Your task to perform on an android device: Turn off the flashlight Image 0: 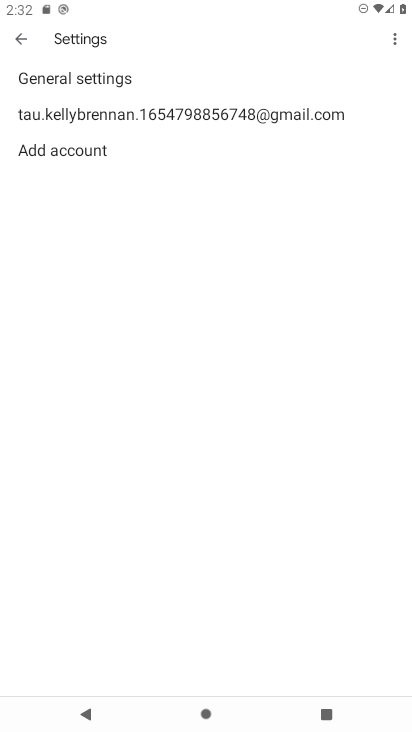
Step 0: press home button
Your task to perform on an android device: Turn off the flashlight Image 1: 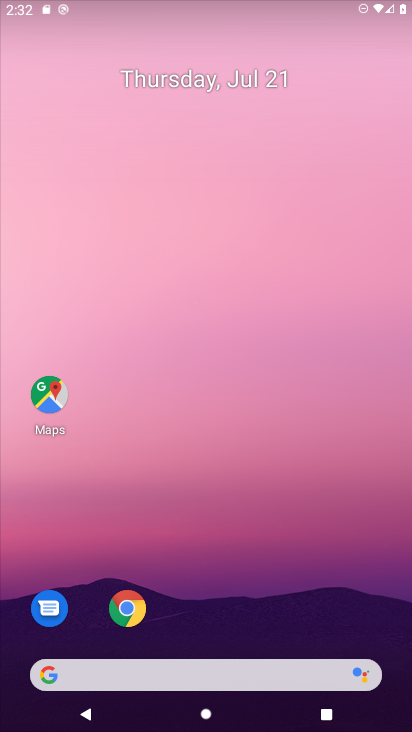
Step 1: drag from (198, 615) to (211, 128)
Your task to perform on an android device: Turn off the flashlight Image 2: 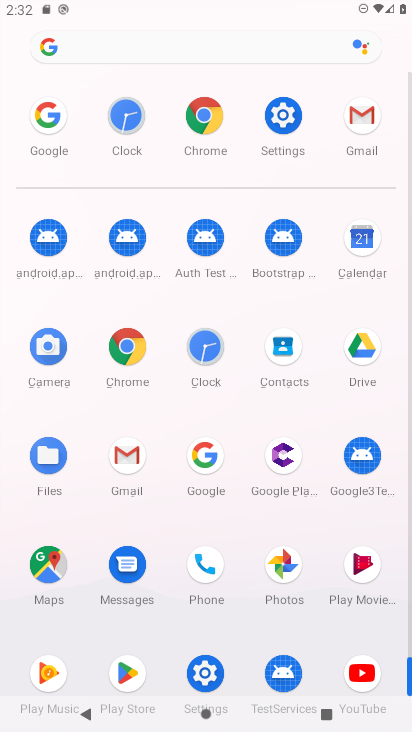
Step 2: click (286, 124)
Your task to perform on an android device: Turn off the flashlight Image 3: 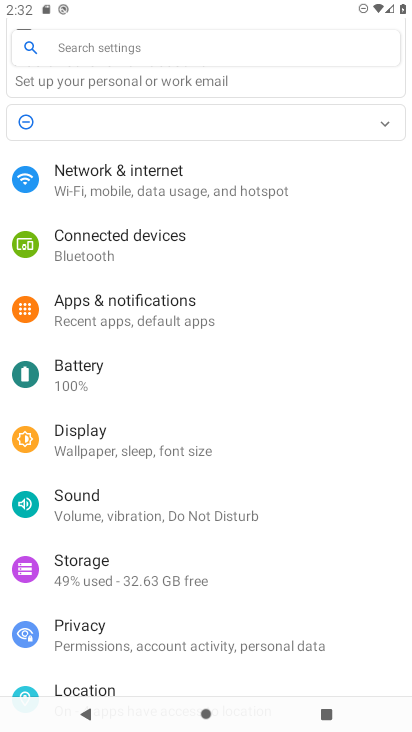
Step 3: task complete